Your task to perform on an android device: add a contact in the contacts app Image 0: 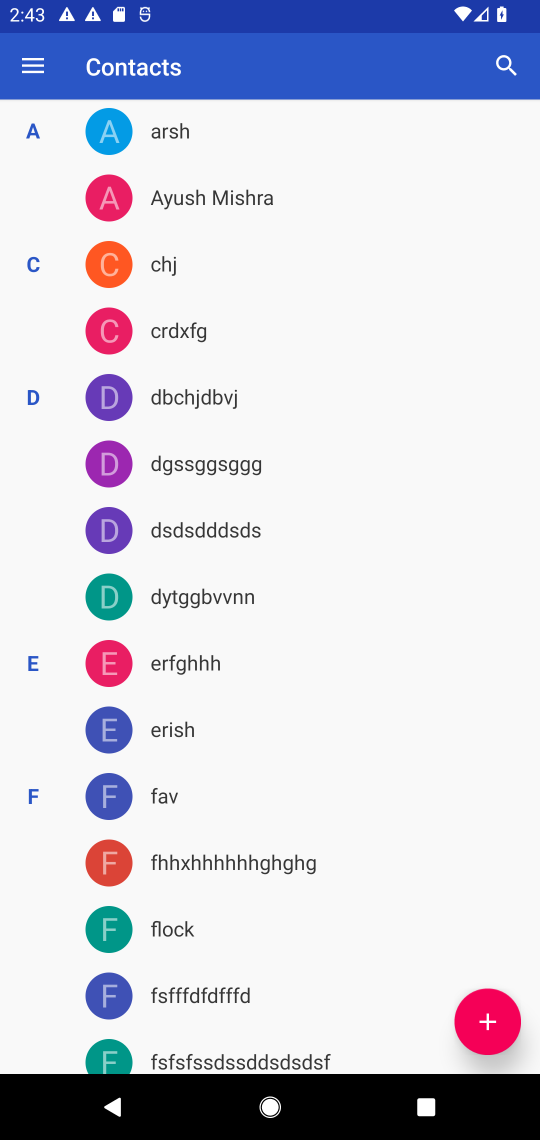
Step 0: click (492, 1017)
Your task to perform on an android device: add a contact in the contacts app Image 1: 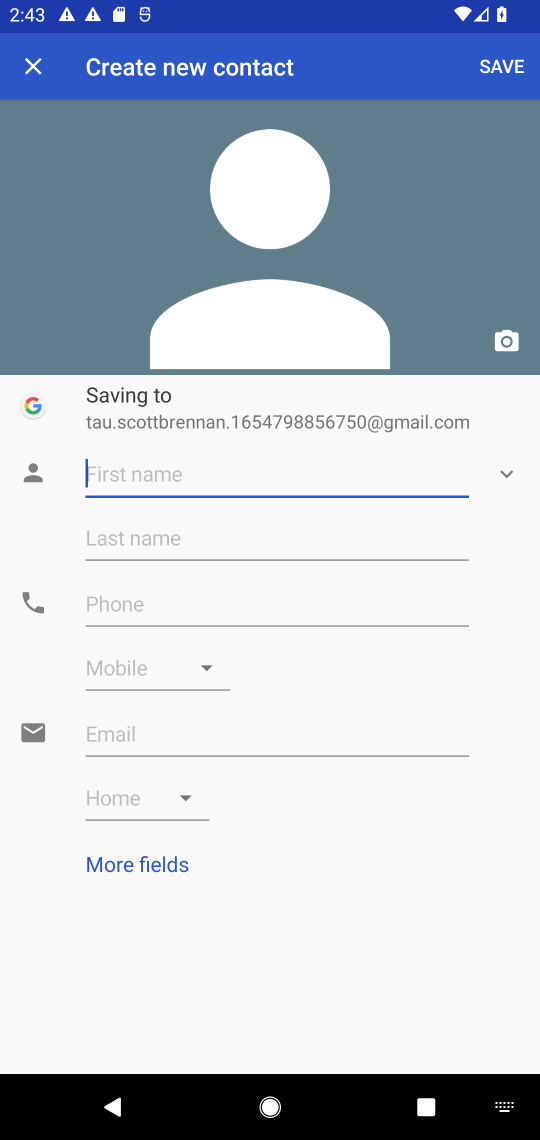
Step 1: type "fctfgy"
Your task to perform on an android device: add a contact in the contacts app Image 2: 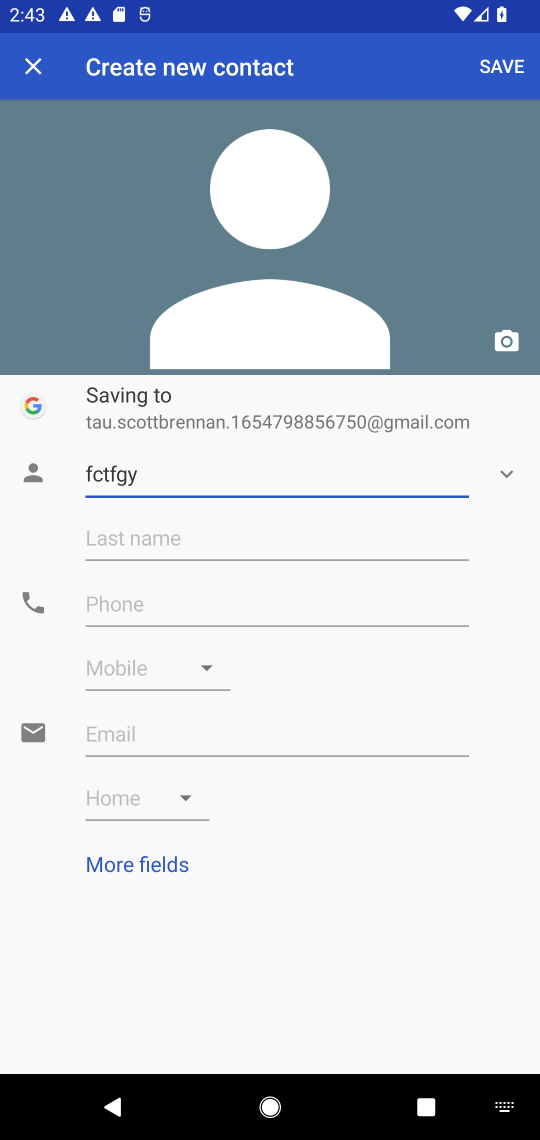
Step 2: click (508, 60)
Your task to perform on an android device: add a contact in the contacts app Image 3: 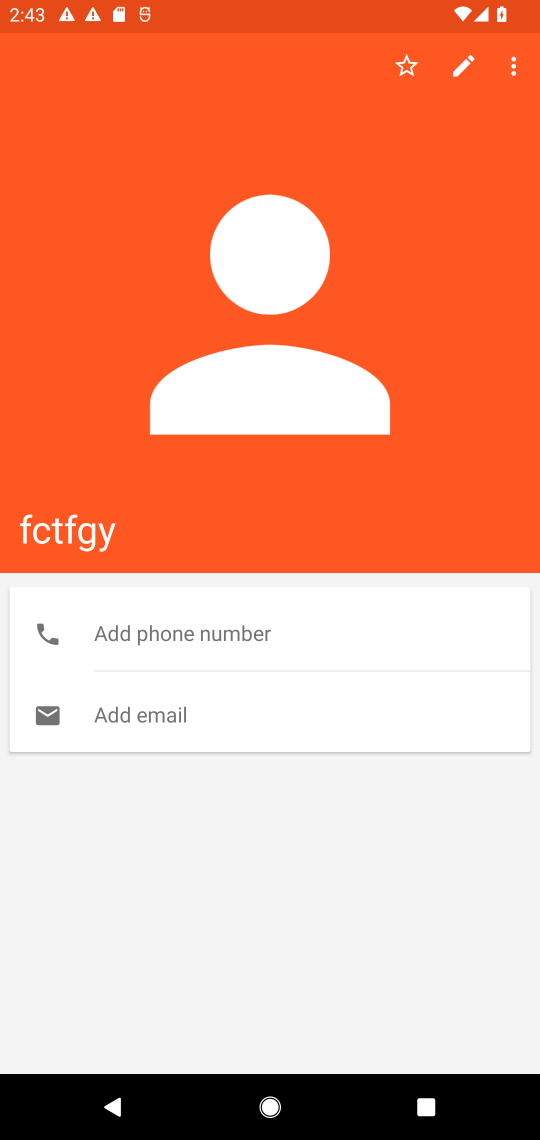
Step 3: task complete